Your task to perform on an android device: turn on translation in the chrome app Image 0: 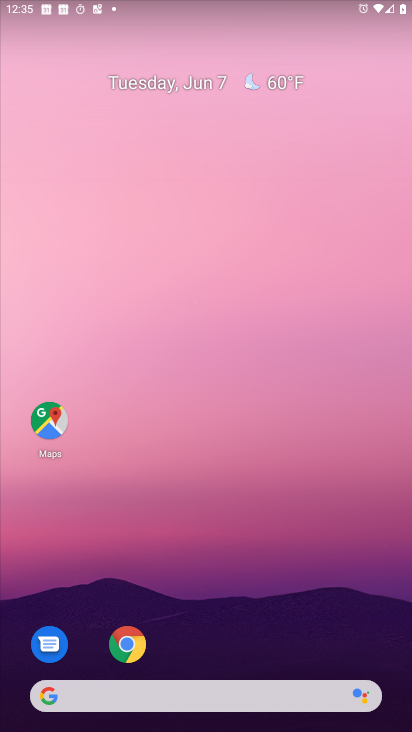
Step 0: click (138, 652)
Your task to perform on an android device: turn on translation in the chrome app Image 1: 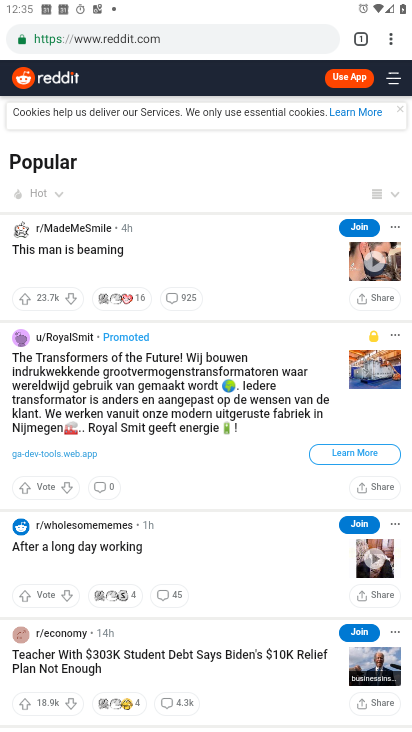
Step 1: click (389, 36)
Your task to perform on an android device: turn on translation in the chrome app Image 2: 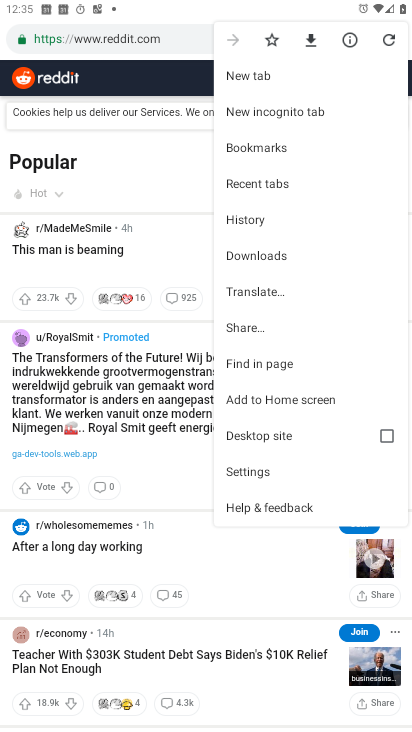
Step 2: click (268, 478)
Your task to perform on an android device: turn on translation in the chrome app Image 3: 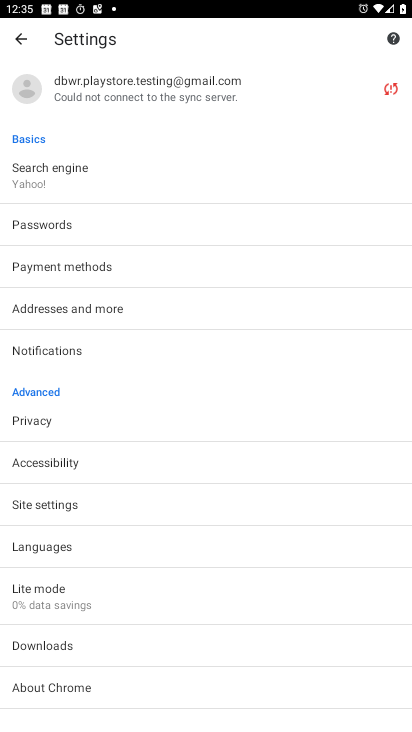
Step 3: click (61, 546)
Your task to perform on an android device: turn on translation in the chrome app Image 4: 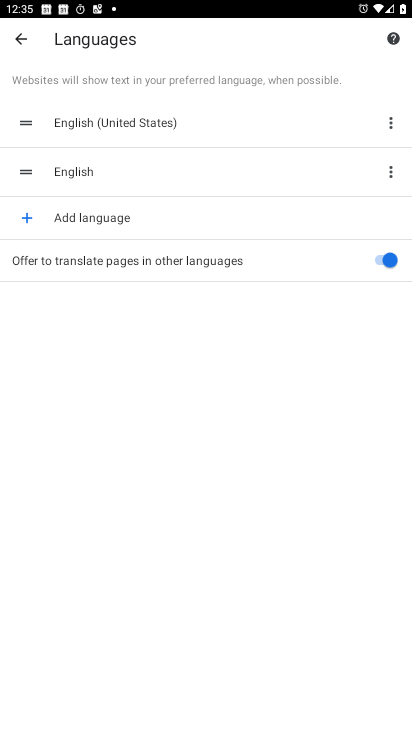
Step 4: task complete